Your task to perform on an android device: turn off wifi Image 0: 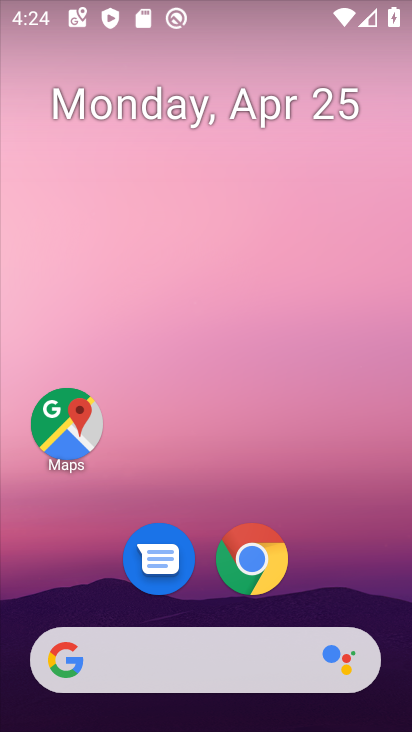
Step 0: drag from (303, 499) to (245, 24)
Your task to perform on an android device: turn off wifi Image 1: 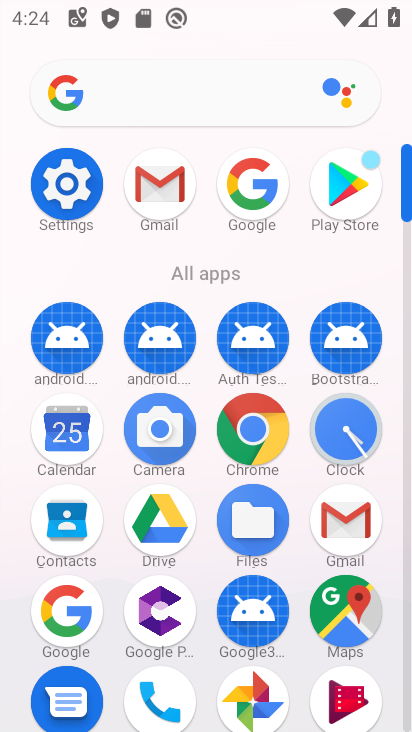
Step 1: click (66, 180)
Your task to perform on an android device: turn off wifi Image 2: 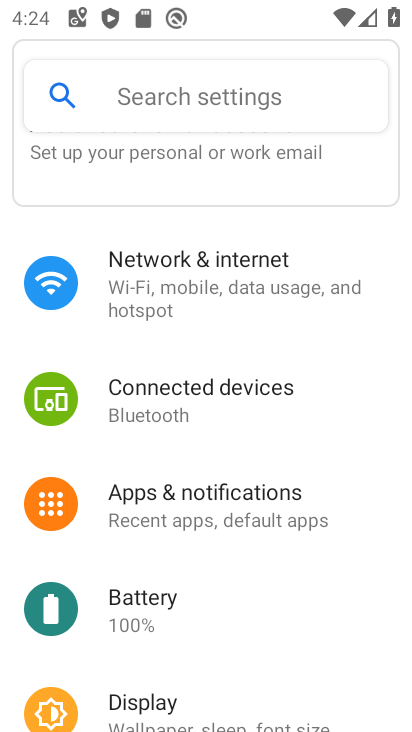
Step 2: drag from (160, 466) to (180, 333)
Your task to perform on an android device: turn off wifi Image 3: 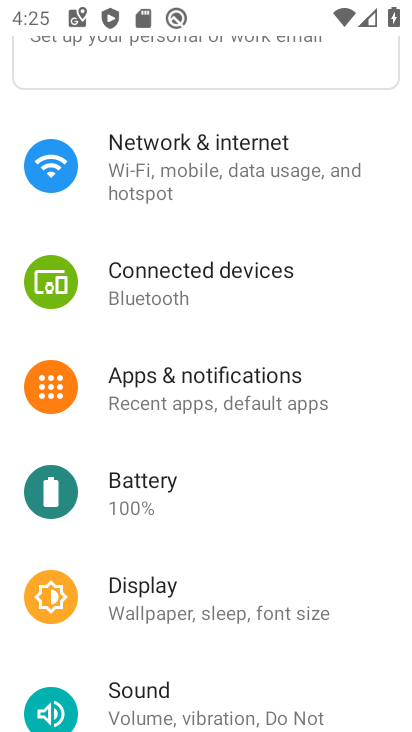
Step 3: click (146, 157)
Your task to perform on an android device: turn off wifi Image 4: 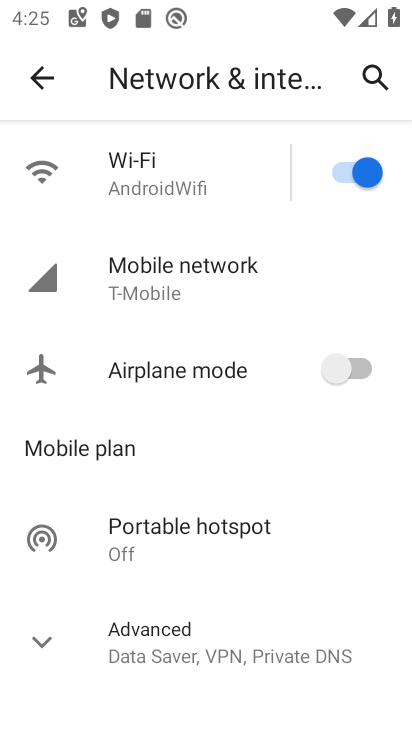
Step 4: click (367, 175)
Your task to perform on an android device: turn off wifi Image 5: 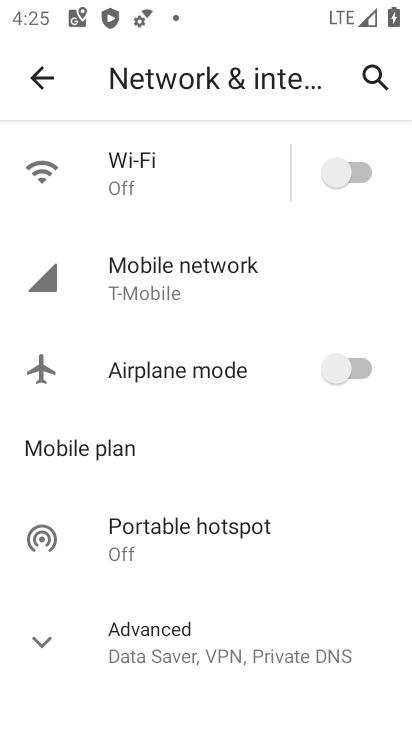
Step 5: task complete